Your task to perform on an android device: Open settings on Google Maps Image 0: 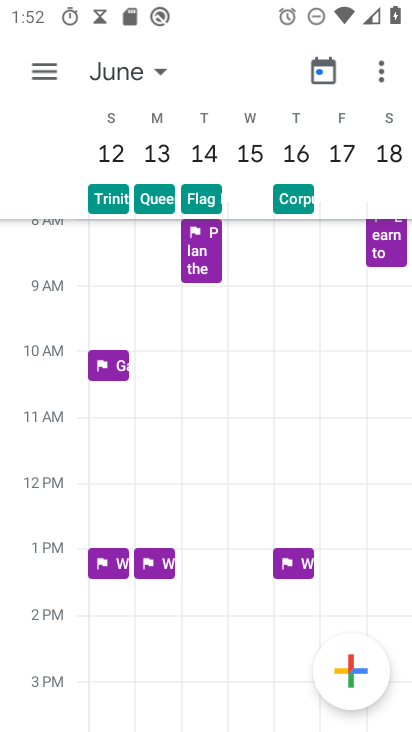
Step 0: press home button
Your task to perform on an android device: Open settings on Google Maps Image 1: 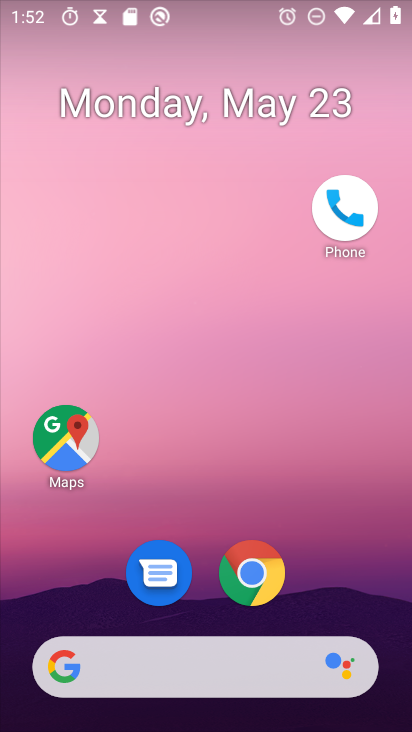
Step 1: click (63, 448)
Your task to perform on an android device: Open settings on Google Maps Image 2: 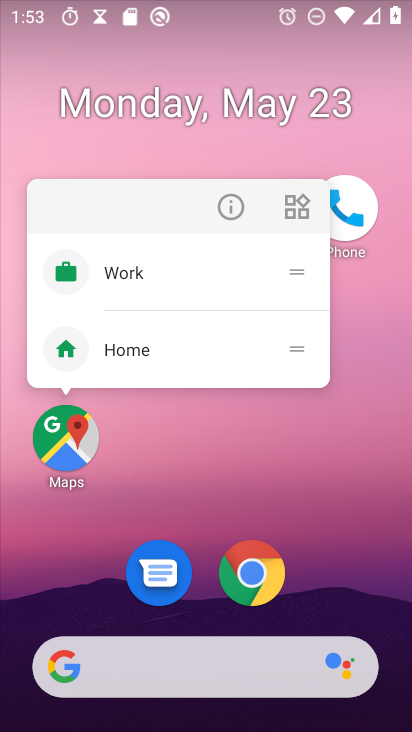
Step 2: click (67, 444)
Your task to perform on an android device: Open settings on Google Maps Image 3: 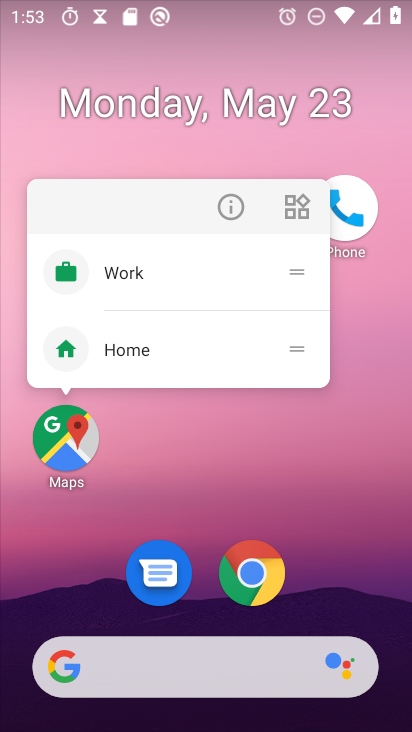
Step 3: click (60, 456)
Your task to perform on an android device: Open settings on Google Maps Image 4: 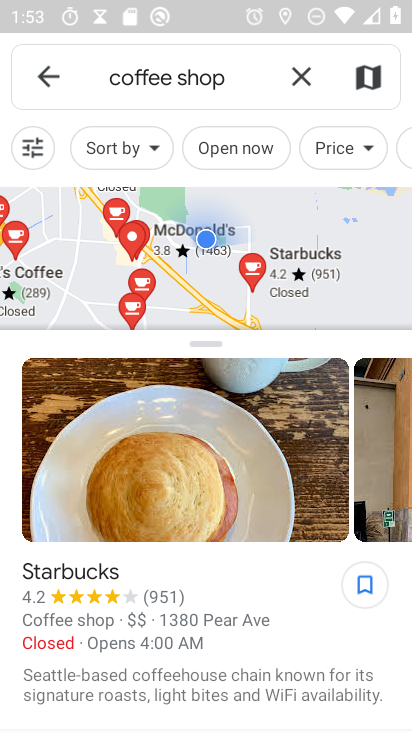
Step 4: click (49, 80)
Your task to perform on an android device: Open settings on Google Maps Image 5: 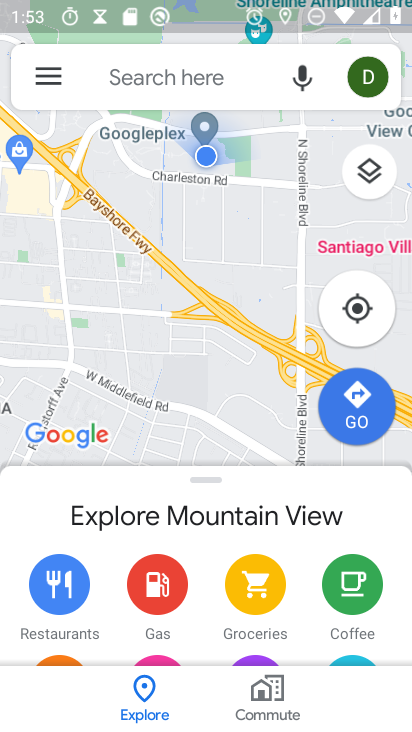
Step 5: click (48, 66)
Your task to perform on an android device: Open settings on Google Maps Image 6: 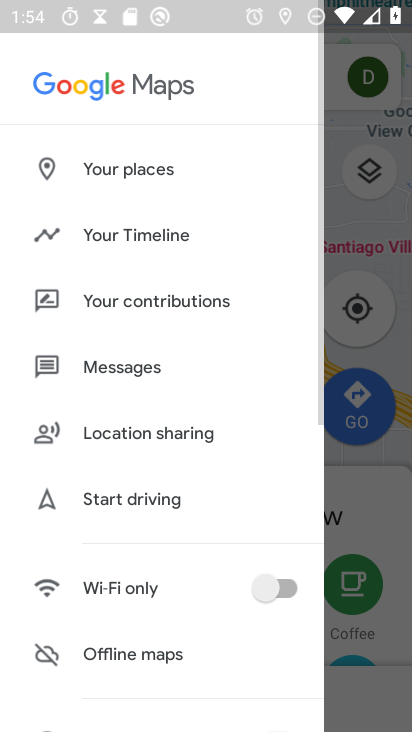
Step 6: drag from (187, 616) to (298, 69)
Your task to perform on an android device: Open settings on Google Maps Image 7: 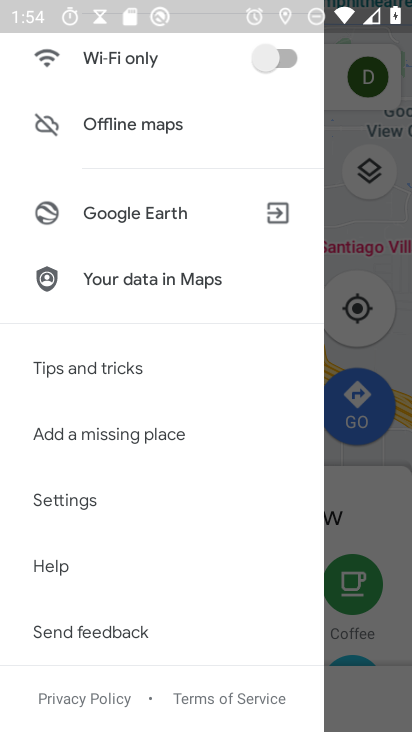
Step 7: click (93, 503)
Your task to perform on an android device: Open settings on Google Maps Image 8: 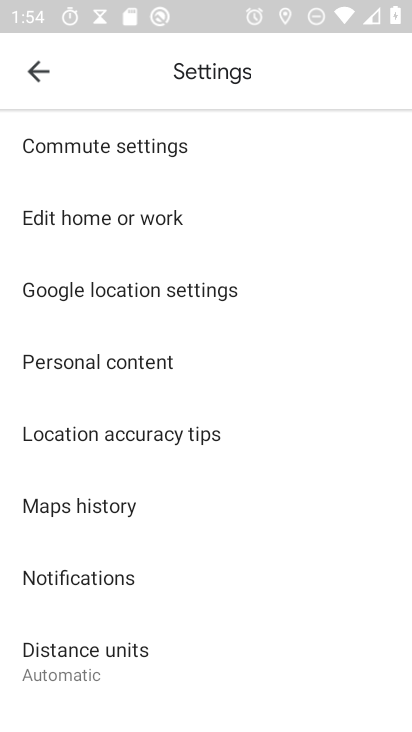
Step 8: task complete